Your task to perform on an android device: open app "PlayWell" (install if not already installed) Image 0: 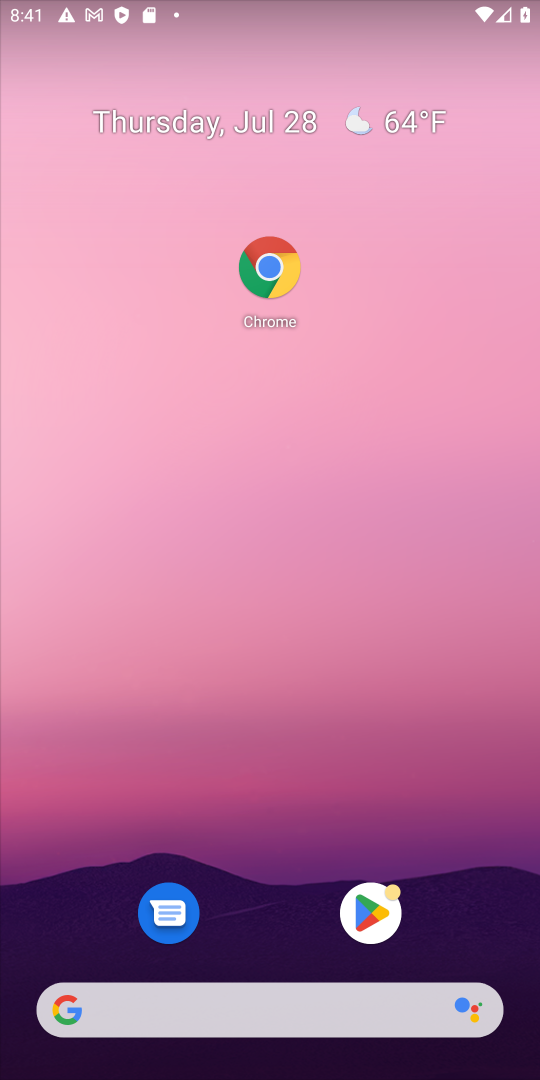
Step 0: click (372, 913)
Your task to perform on an android device: open app "PlayWell" (install if not already installed) Image 1: 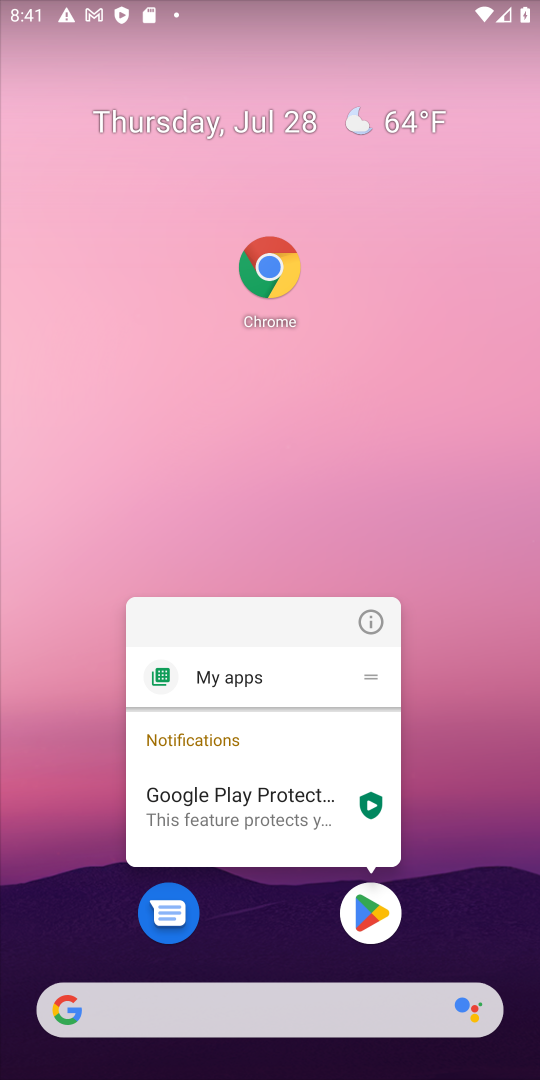
Step 1: click (364, 935)
Your task to perform on an android device: open app "PlayWell" (install if not already installed) Image 2: 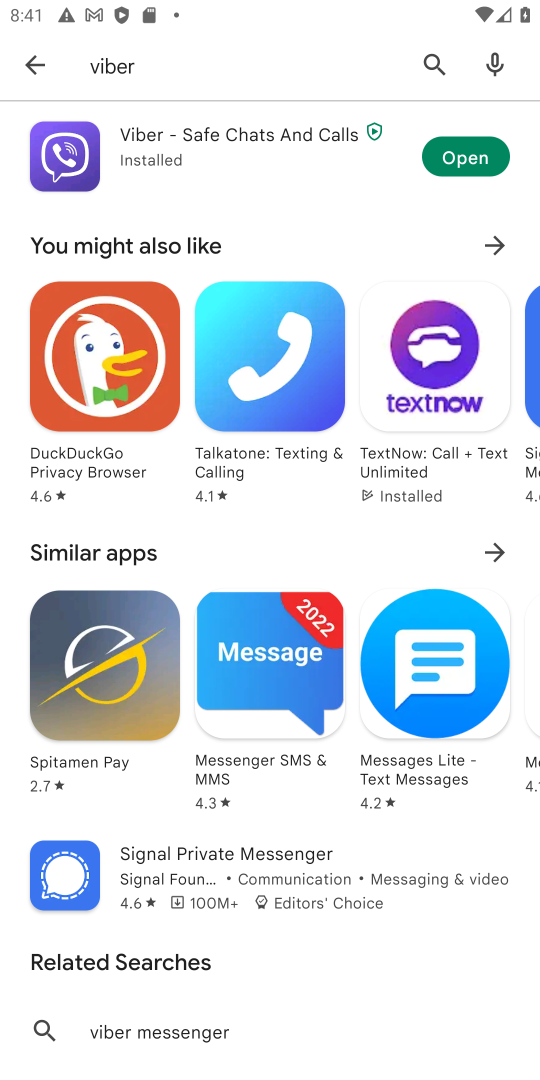
Step 2: click (424, 65)
Your task to perform on an android device: open app "PlayWell" (install if not already installed) Image 3: 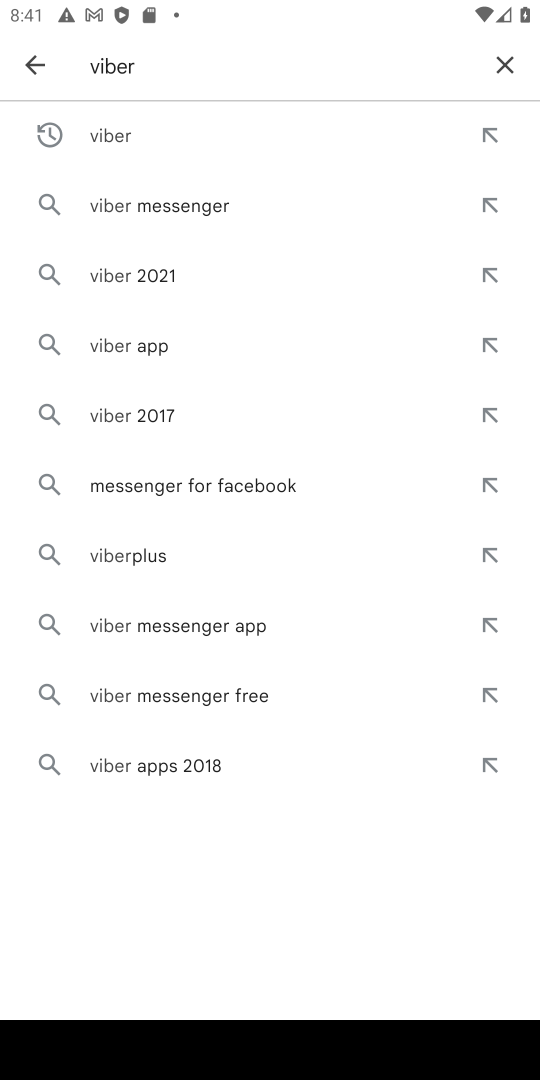
Step 3: click (507, 64)
Your task to perform on an android device: open app "PlayWell" (install if not already installed) Image 4: 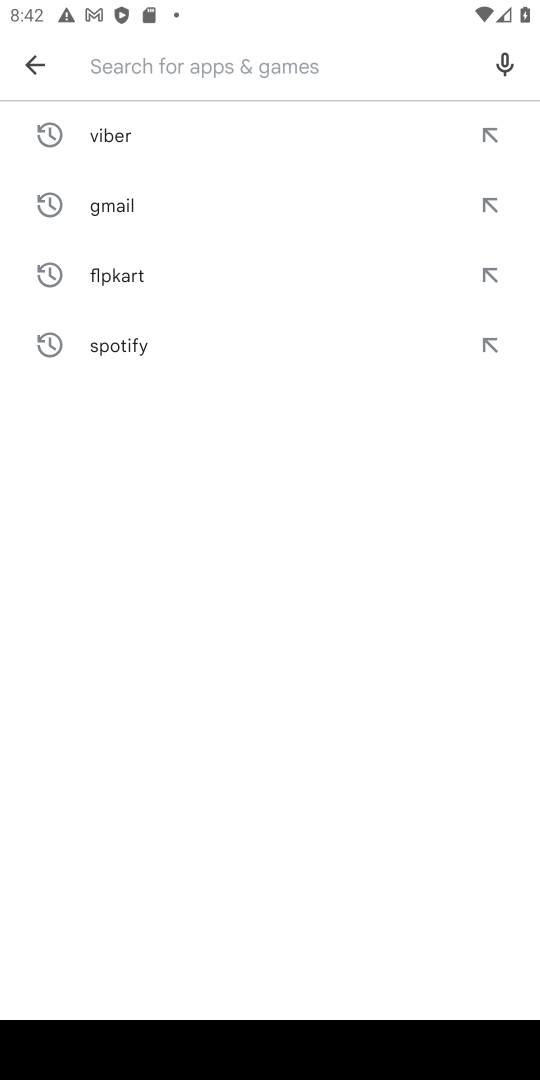
Step 4: type "playwell"
Your task to perform on an android device: open app "PlayWell" (install if not already installed) Image 5: 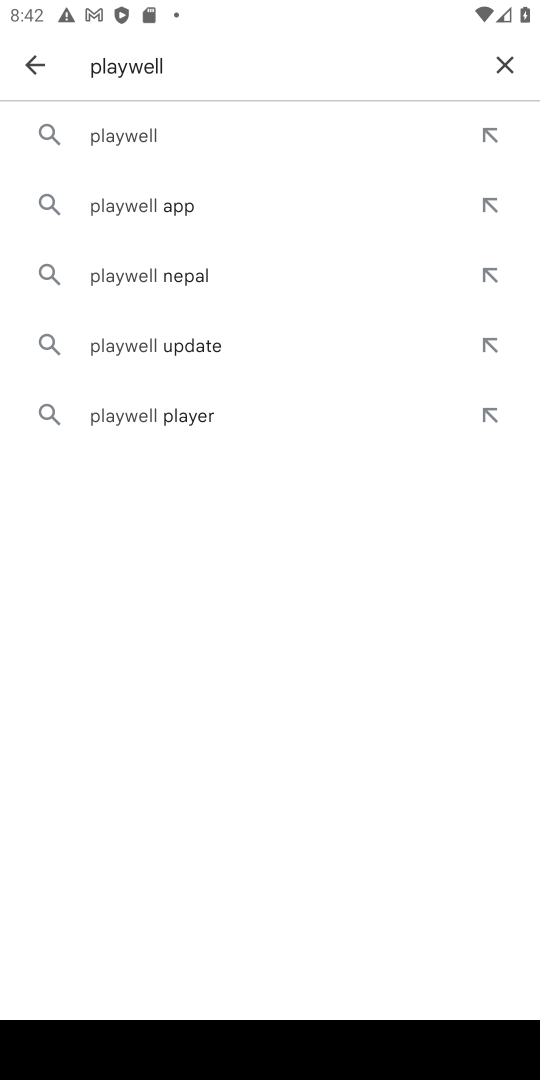
Step 5: task complete